Your task to perform on an android device: turn on translation in the chrome app Image 0: 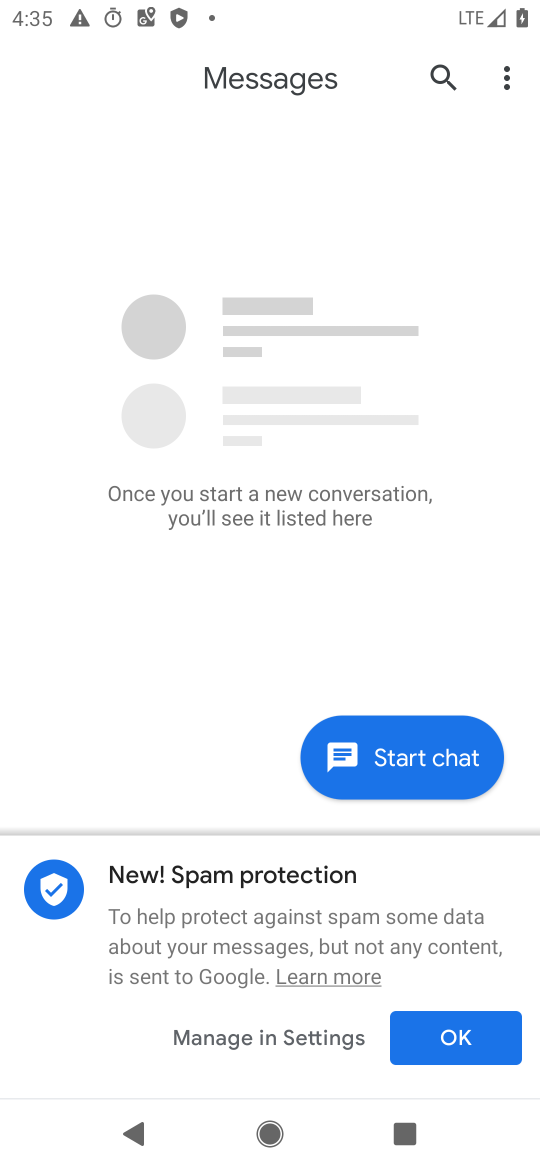
Step 0: press home button
Your task to perform on an android device: turn on translation in the chrome app Image 1: 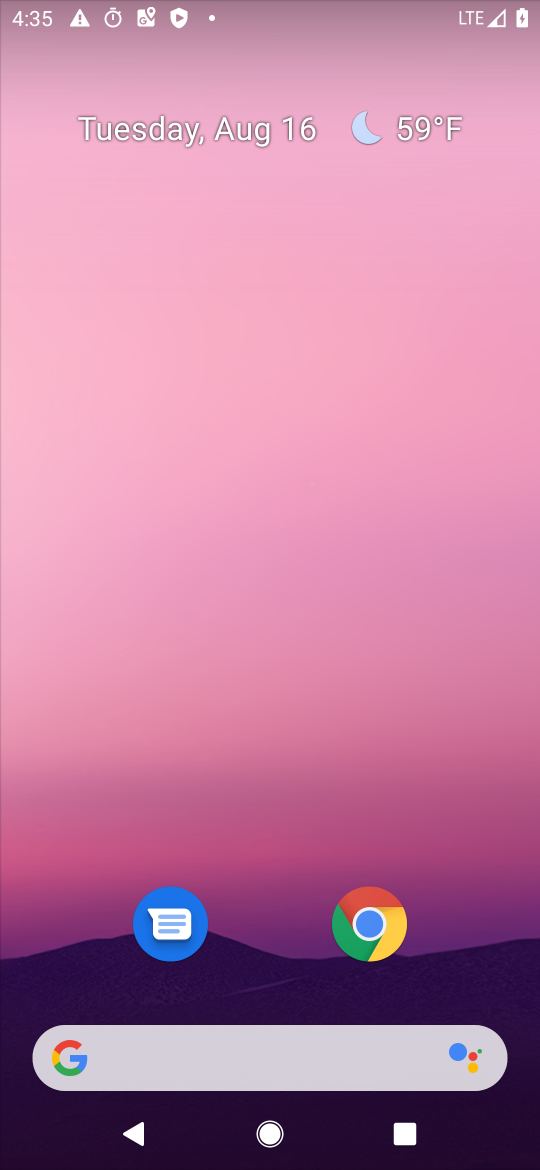
Step 1: click (373, 933)
Your task to perform on an android device: turn on translation in the chrome app Image 2: 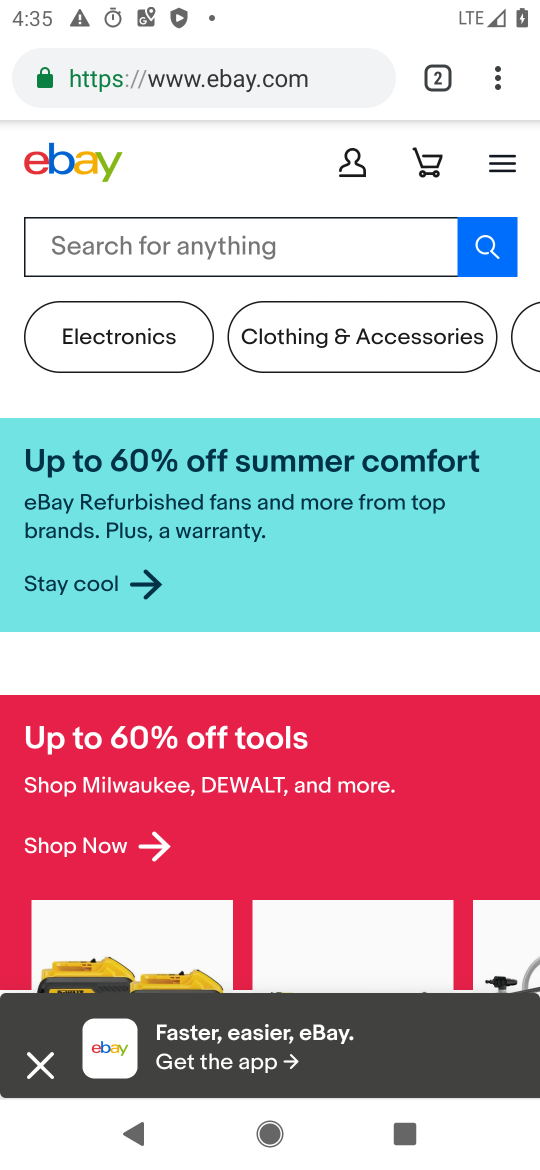
Step 2: click (513, 81)
Your task to perform on an android device: turn on translation in the chrome app Image 3: 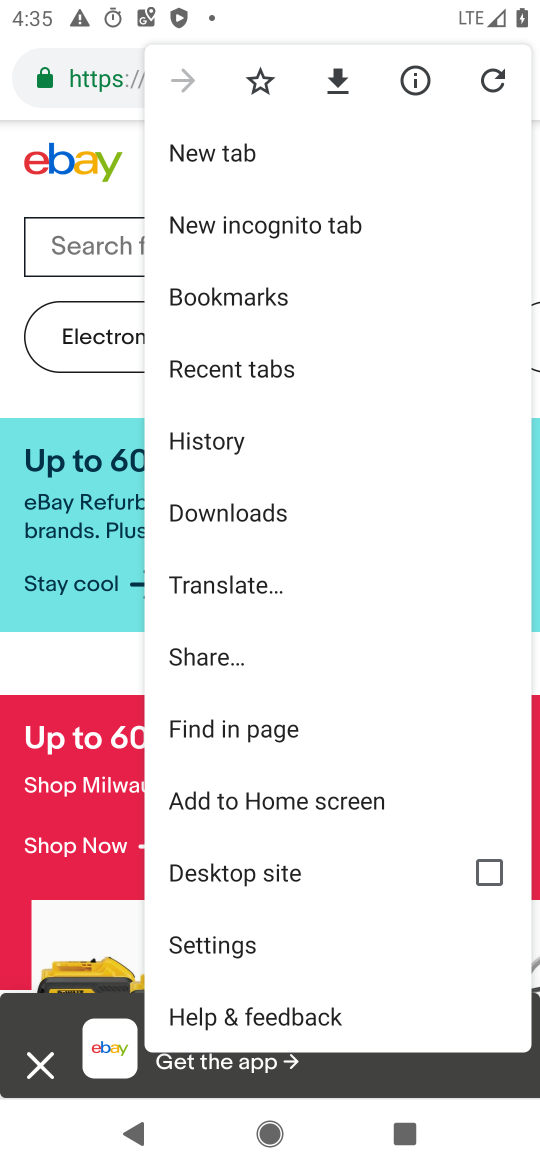
Step 3: click (189, 957)
Your task to perform on an android device: turn on translation in the chrome app Image 4: 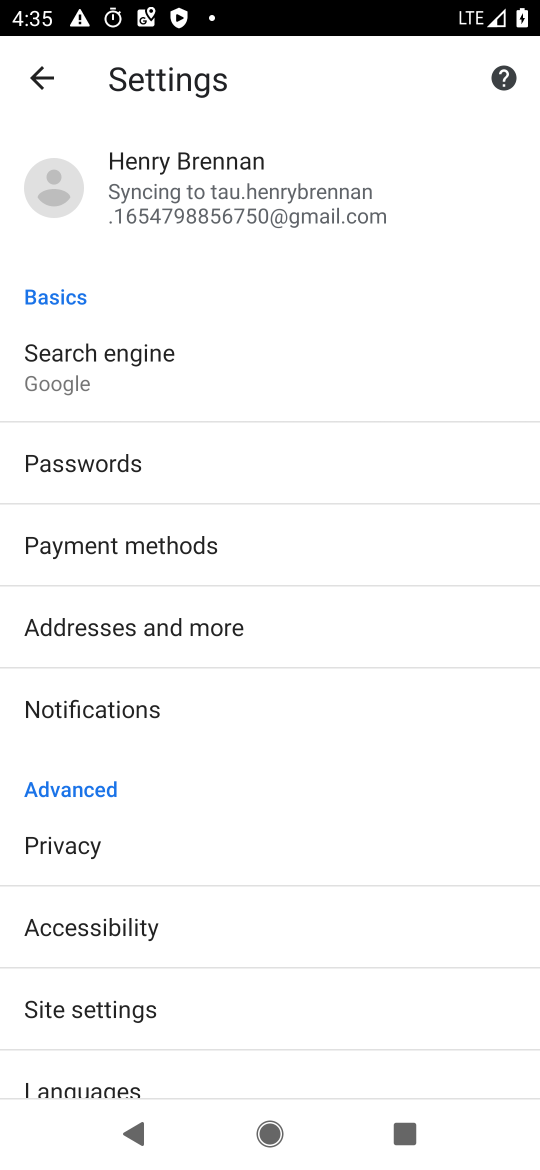
Step 4: click (81, 1081)
Your task to perform on an android device: turn on translation in the chrome app Image 5: 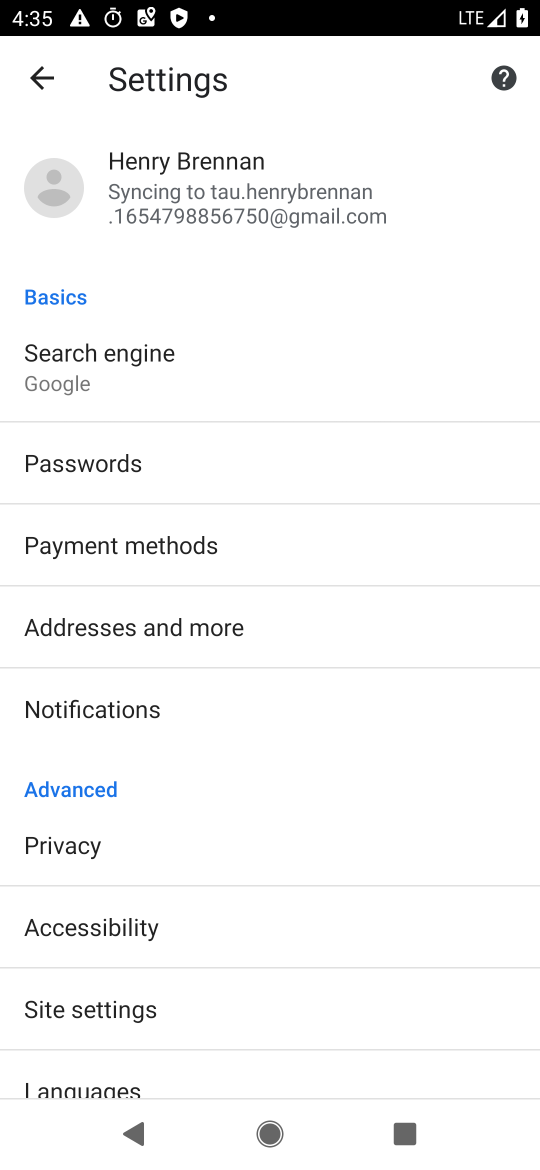
Step 5: click (81, 1081)
Your task to perform on an android device: turn on translation in the chrome app Image 6: 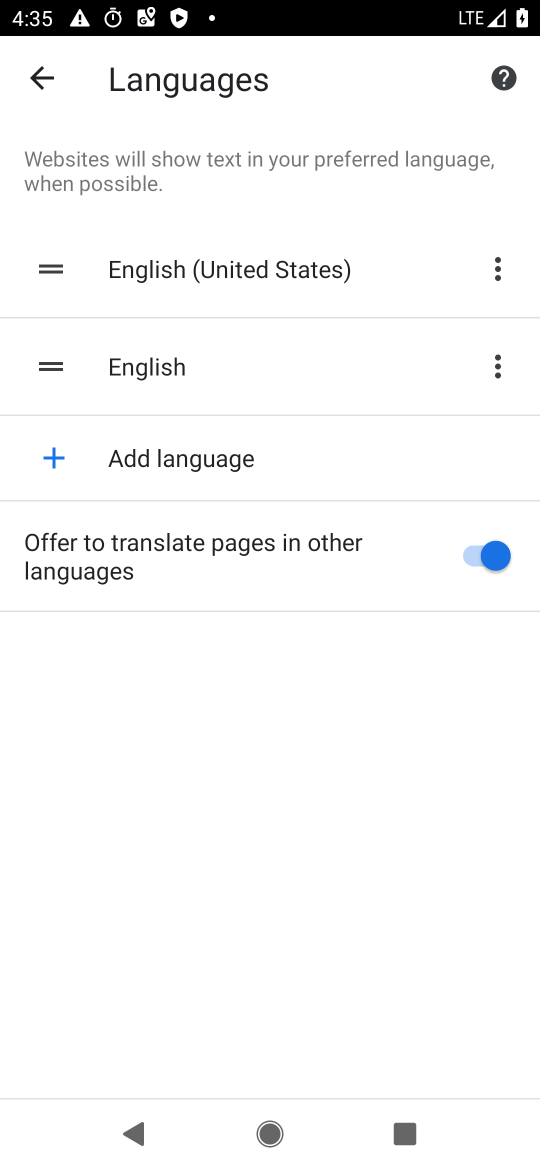
Step 6: task complete